Your task to perform on an android device: What is the news today? Image 0: 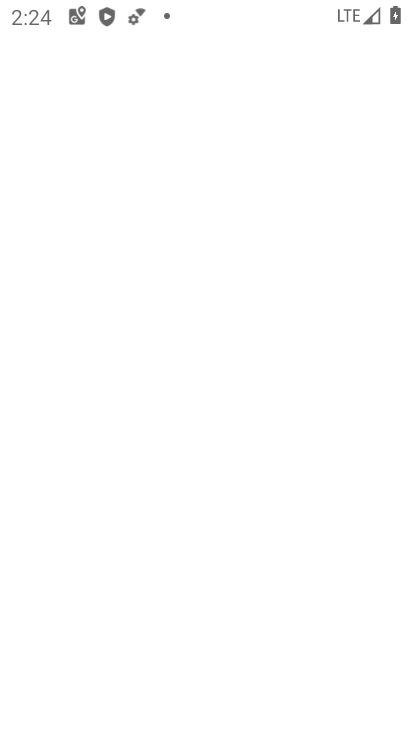
Step 0: press home button
Your task to perform on an android device: What is the news today? Image 1: 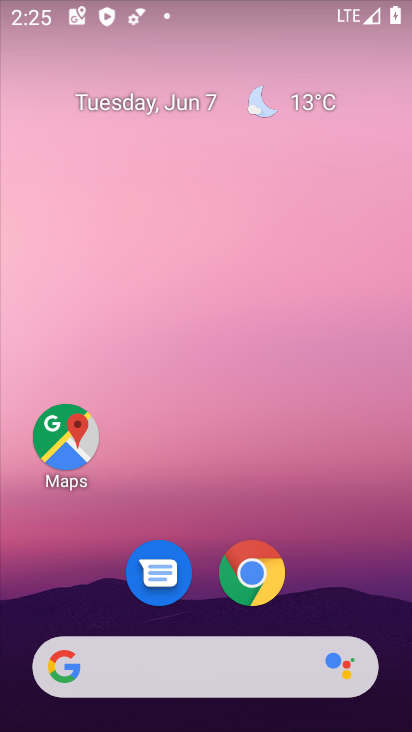
Step 1: click (220, 677)
Your task to perform on an android device: What is the news today? Image 2: 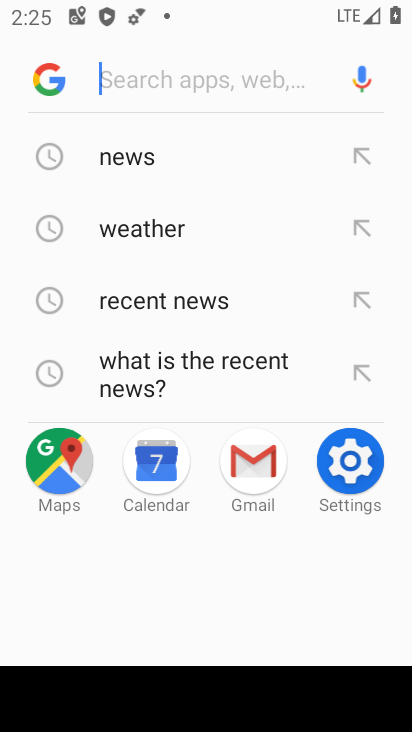
Step 2: type "what is the news today"
Your task to perform on an android device: What is the news today? Image 3: 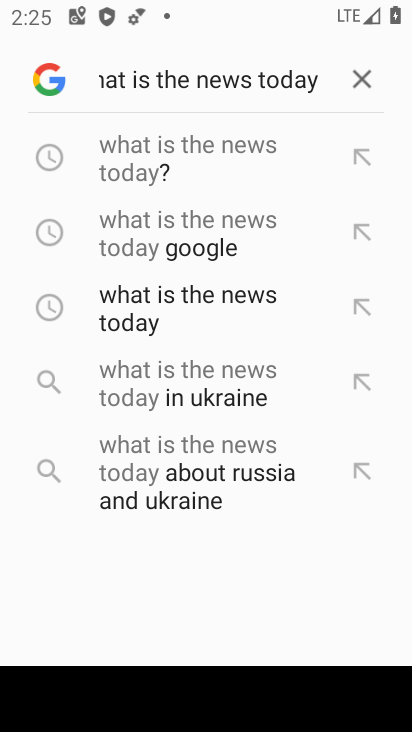
Step 3: click (161, 156)
Your task to perform on an android device: What is the news today? Image 4: 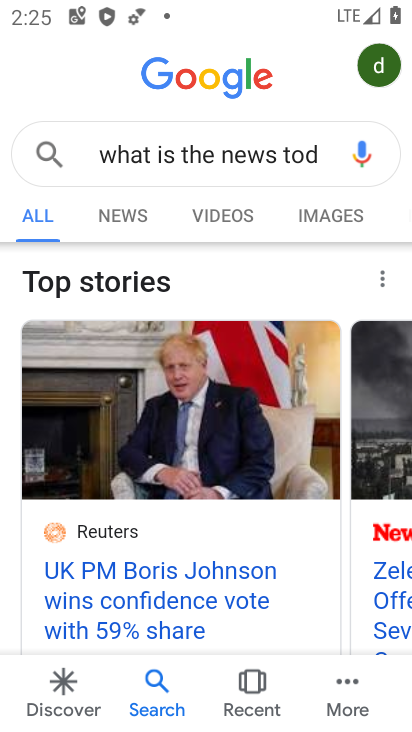
Step 4: task complete